Your task to perform on an android device: move a message to another label in the gmail app Image 0: 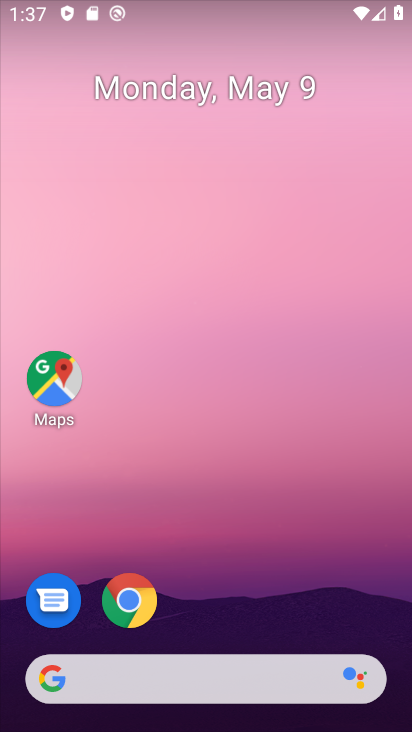
Step 0: drag from (270, 612) to (298, 0)
Your task to perform on an android device: move a message to another label in the gmail app Image 1: 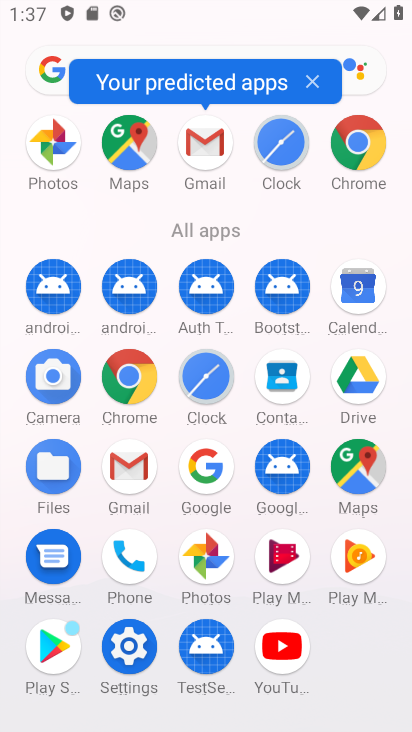
Step 1: click (132, 478)
Your task to perform on an android device: move a message to another label in the gmail app Image 2: 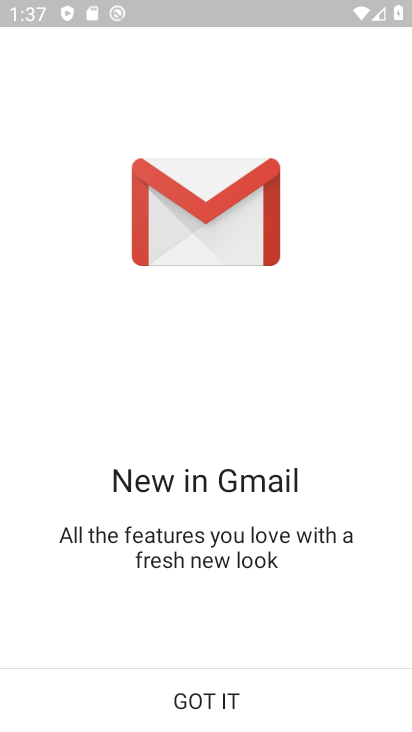
Step 2: click (167, 696)
Your task to perform on an android device: move a message to another label in the gmail app Image 3: 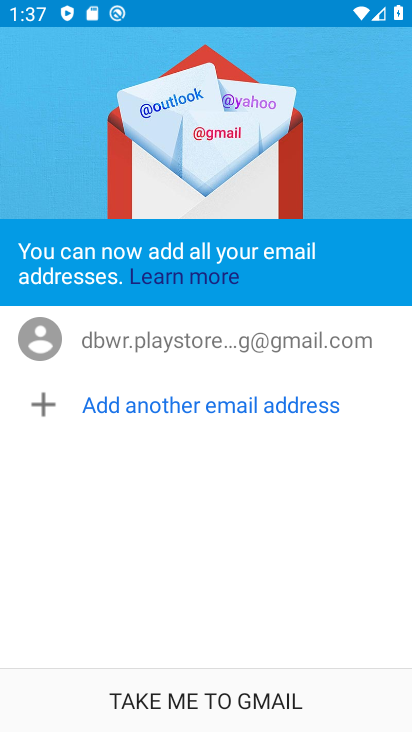
Step 3: click (265, 687)
Your task to perform on an android device: move a message to another label in the gmail app Image 4: 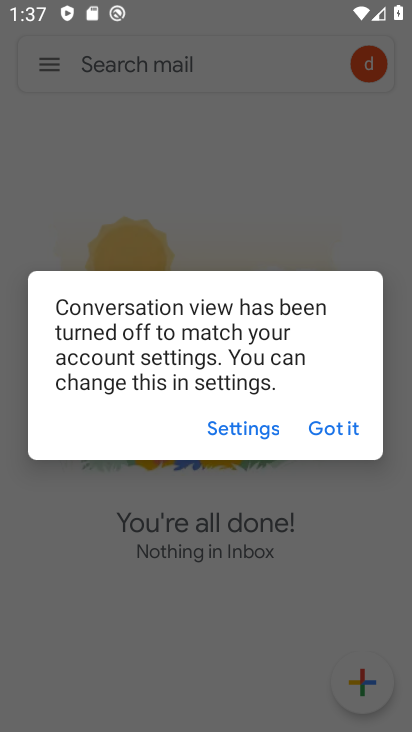
Step 4: click (363, 427)
Your task to perform on an android device: move a message to another label in the gmail app Image 5: 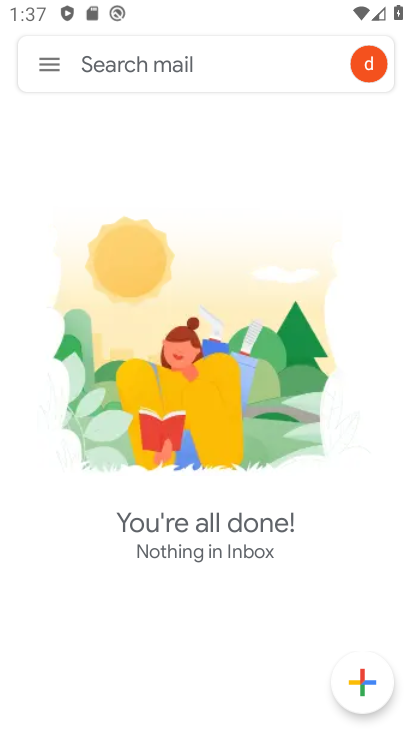
Step 5: click (45, 58)
Your task to perform on an android device: move a message to another label in the gmail app Image 6: 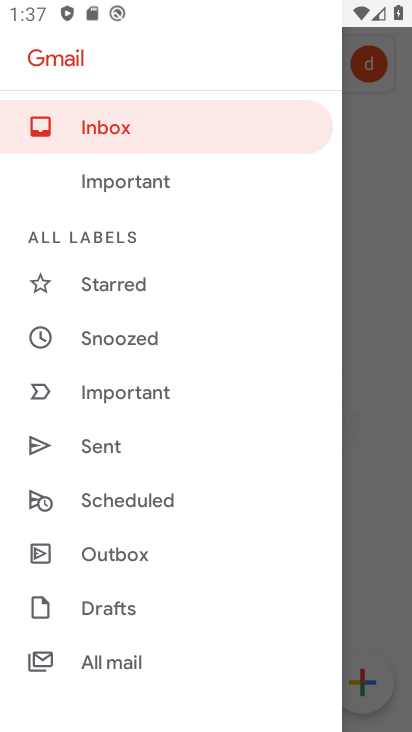
Step 6: click (102, 643)
Your task to perform on an android device: move a message to another label in the gmail app Image 7: 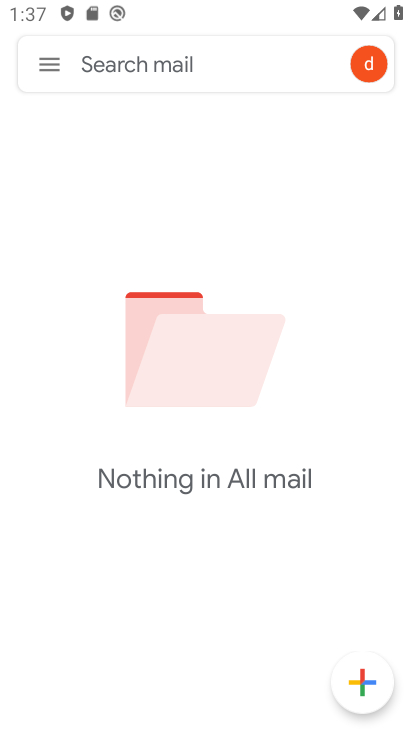
Step 7: task complete